Your task to perform on an android device: see tabs open on other devices in the chrome app Image 0: 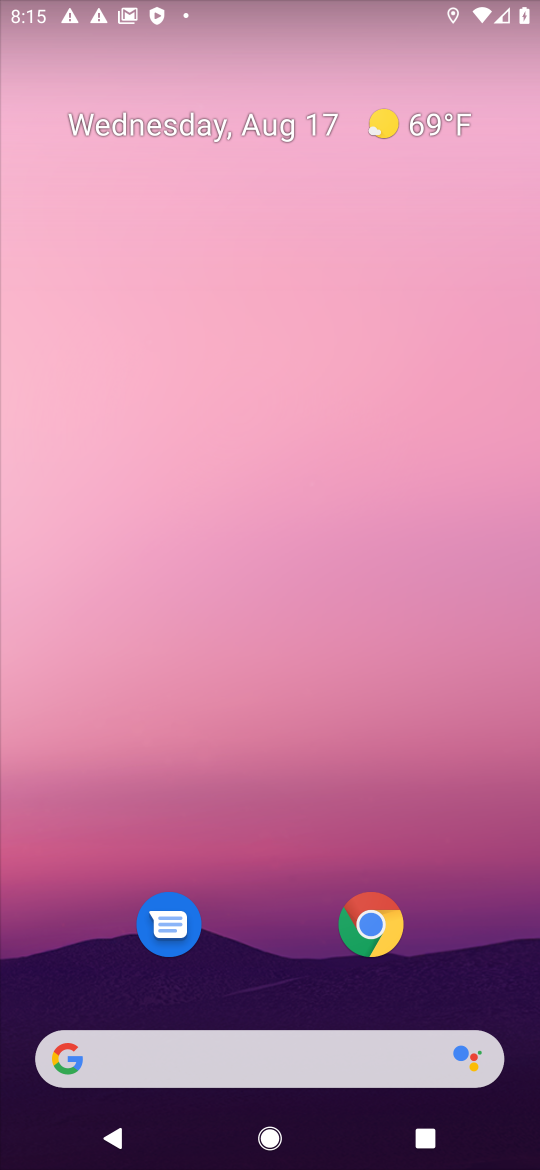
Step 0: drag from (290, 978) to (298, 40)
Your task to perform on an android device: see tabs open on other devices in the chrome app Image 1: 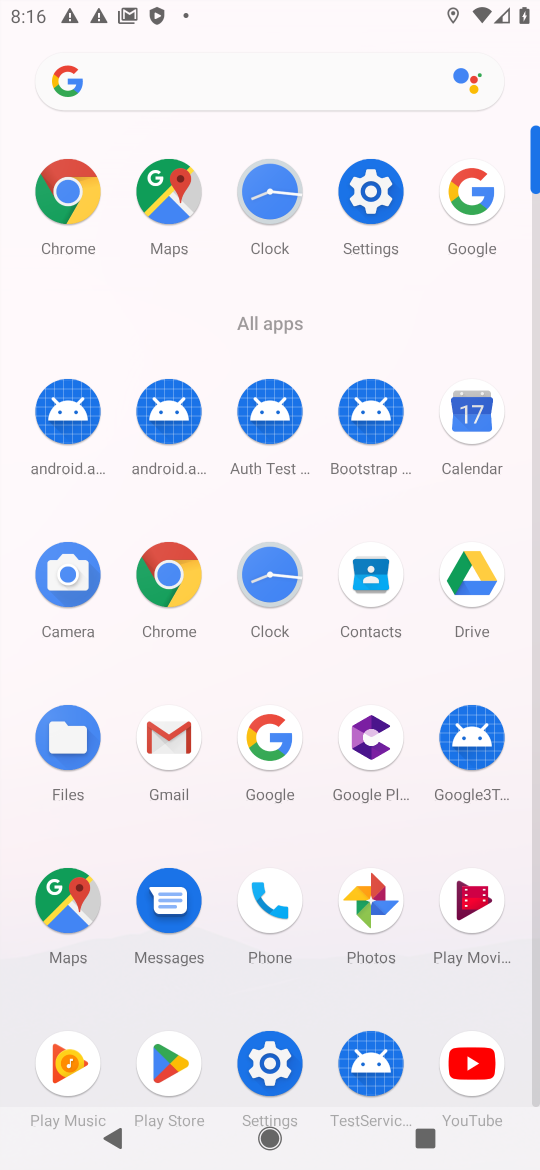
Step 1: click (163, 578)
Your task to perform on an android device: see tabs open on other devices in the chrome app Image 2: 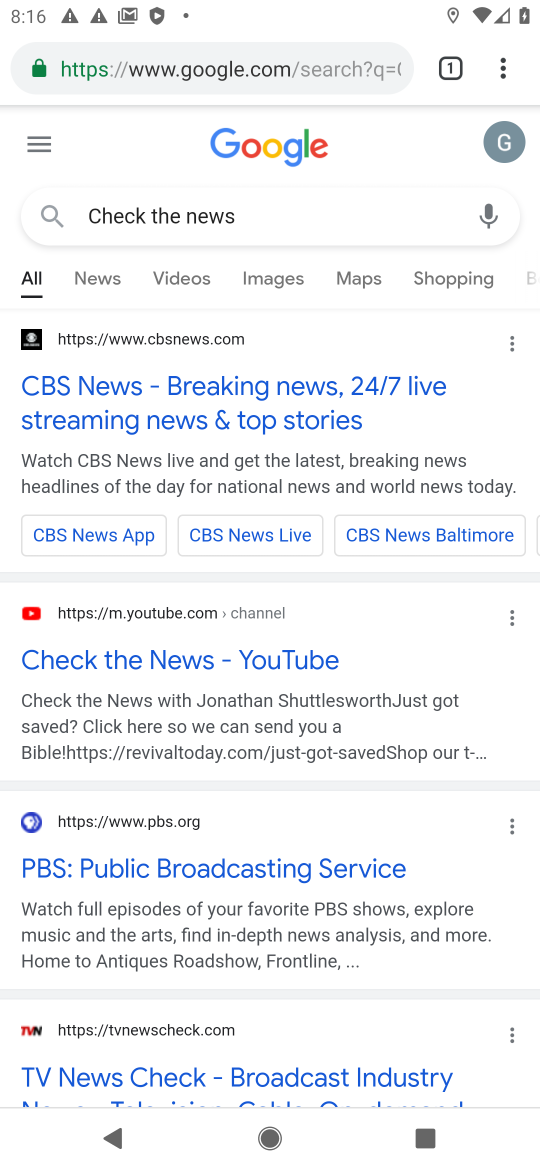
Step 2: task complete